Your task to perform on an android device: find snoozed emails in the gmail app Image 0: 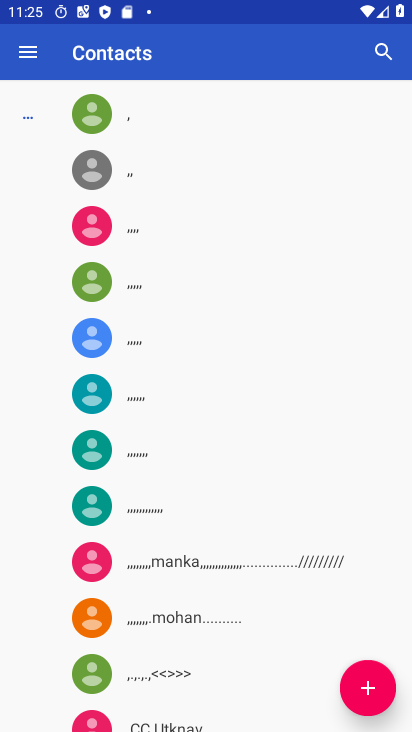
Step 0: press home button
Your task to perform on an android device: find snoozed emails in the gmail app Image 1: 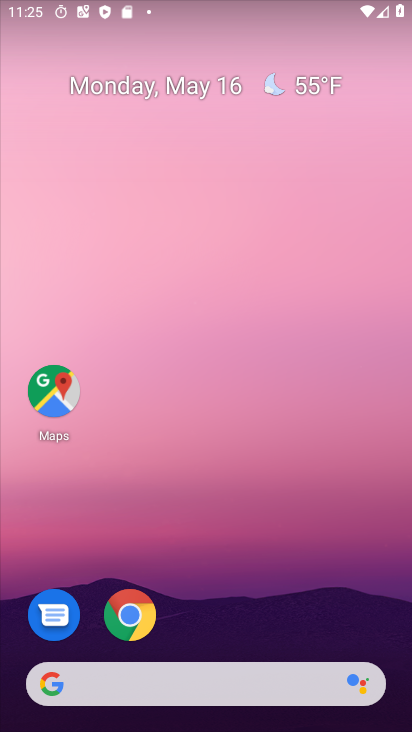
Step 1: drag from (340, 600) to (320, 40)
Your task to perform on an android device: find snoozed emails in the gmail app Image 2: 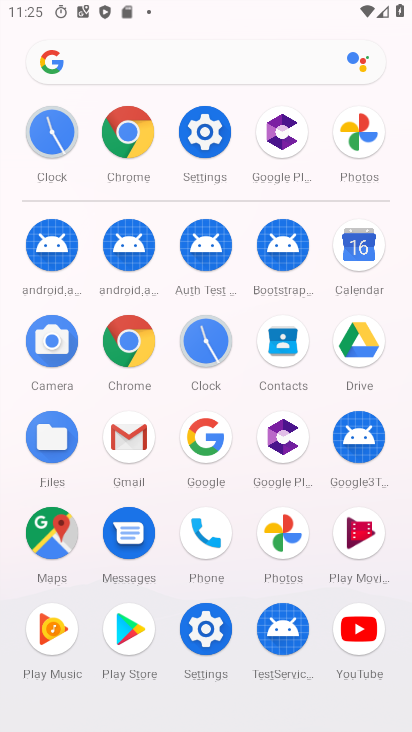
Step 2: click (140, 438)
Your task to perform on an android device: find snoozed emails in the gmail app Image 3: 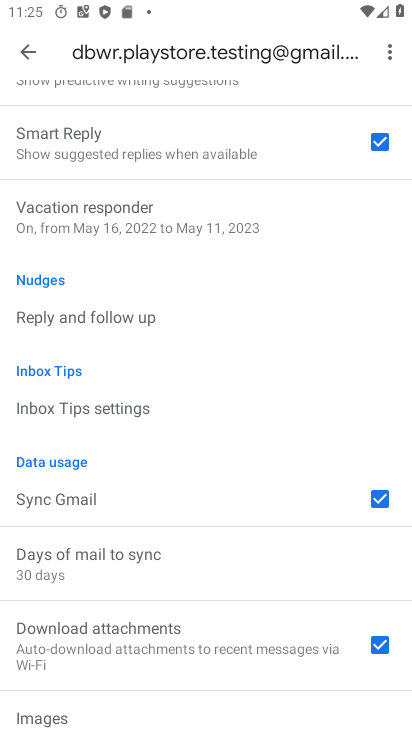
Step 3: click (33, 43)
Your task to perform on an android device: find snoozed emails in the gmail app Image 4: 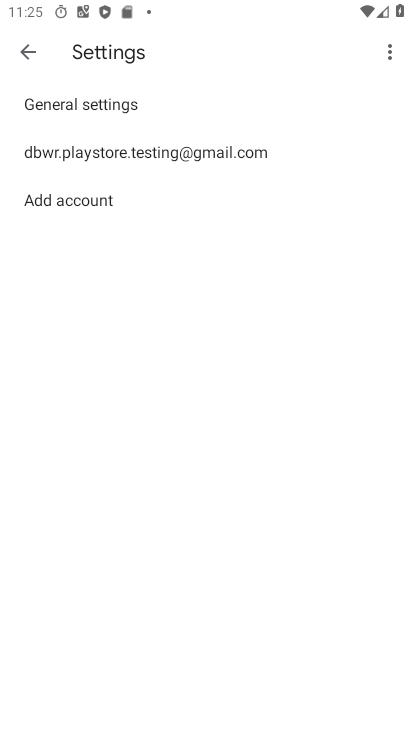
Step 4: click (38, 54)
Your task to perform on an android device: find snoozed emails in the gmail app Image 5: 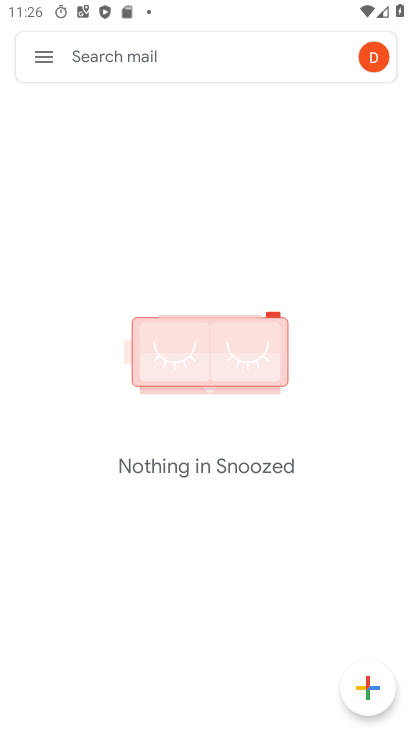
Step 5: press home button
Your task to perform on an android device: find snoozed emails in the gmail app Image 6: 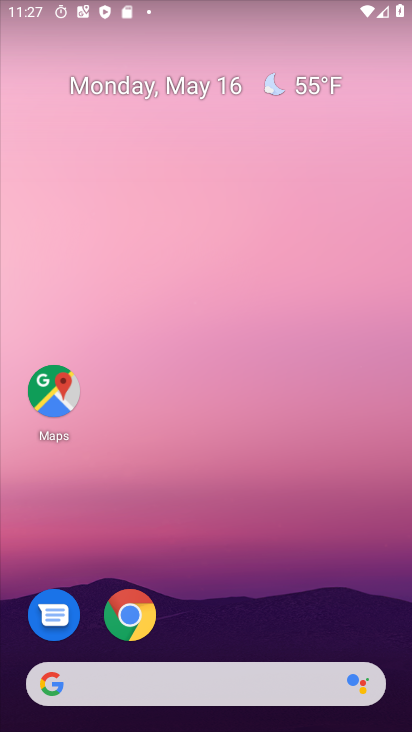
Step 6: drag from (263, 189) to (263, 60)
Your task to perform on an android device: find snoozed emails in the gmail app Image 7: 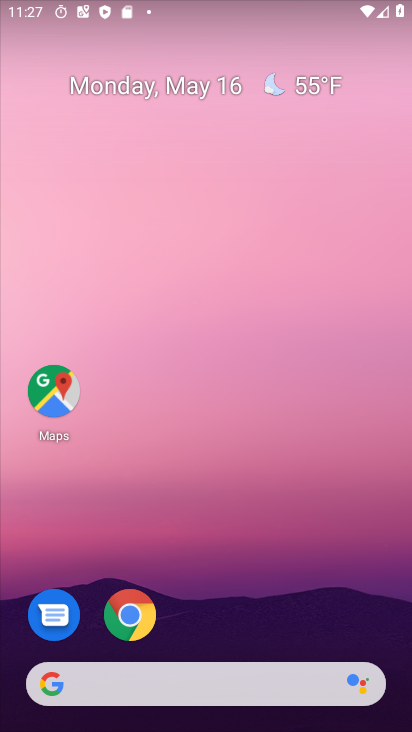
Step 7: drag from (278, 500) to (374, 0)
Your task to perform on an android device: find snoozed emails in the gmail app Image 8: 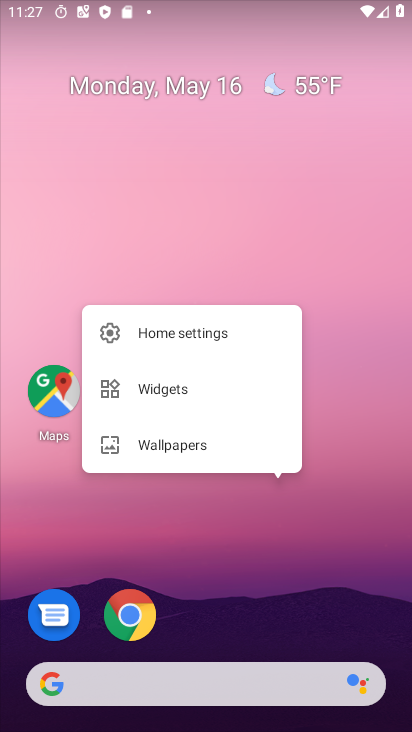
Step 8: drag from (333, 551) to (48, 11)
Your task to perform on an android device: find snoozed emails in the gmail app Image 9: 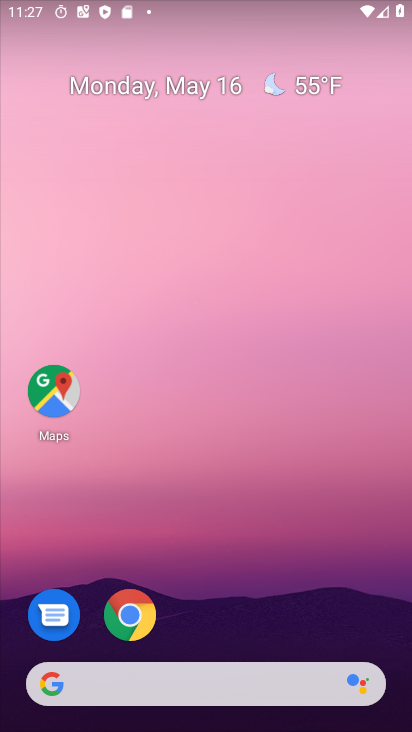
Step 9: drag from (233, 628) to (307, 12)
Your task to perform on an android device: find snoozed emails in the gmail app Image 10: 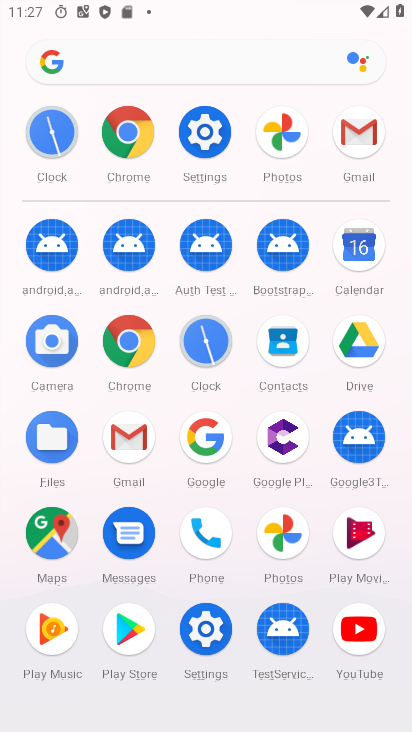
Step 10: drag from (352, 587) to (281, 220)
Your task to perform on an android device: find snoozed emails in the gmail app Image 11: 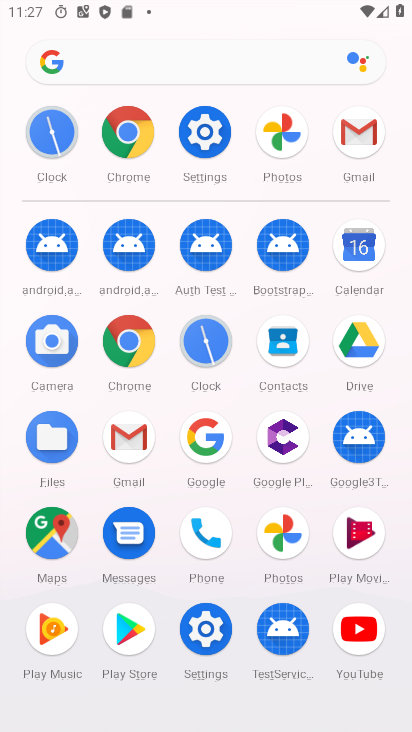
Step 11: click (352, 133)
Your task to perform on an android device: find snoozed emails in the gmail app Image 12: 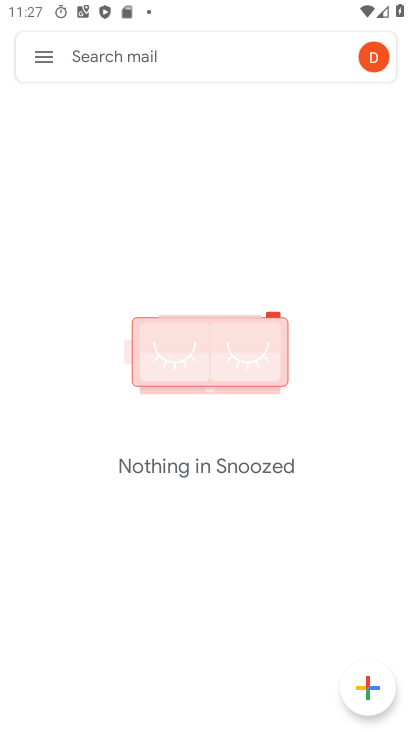
Step 12: click (37, 51)
Your task to perform on an android device: find snoozed emails in the gmail app Image 13: 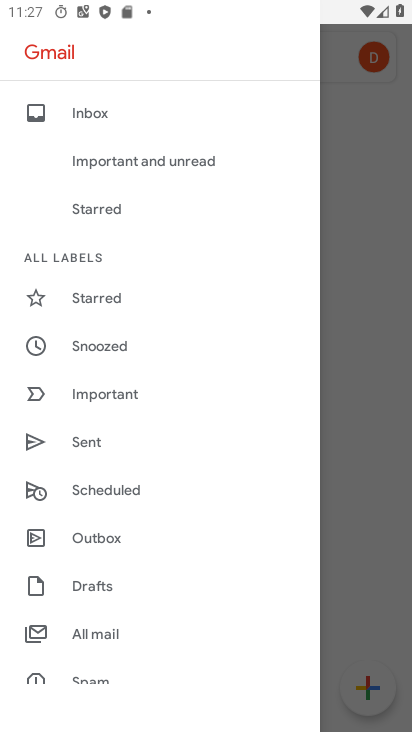
Step 13: click (89, 341)
Your task to perform on an android device: find snoozed emails in the gmail app Image 14: 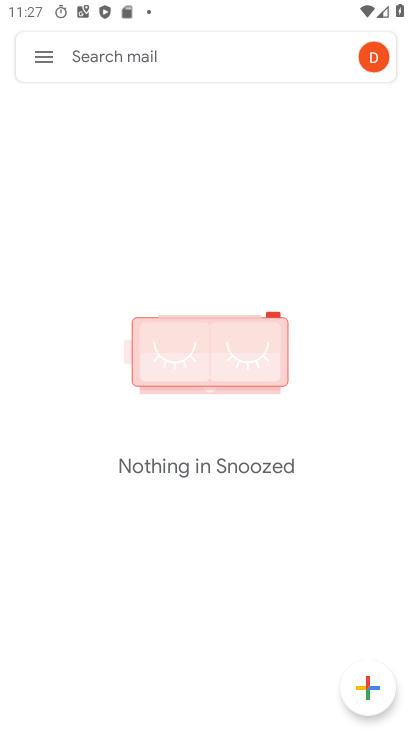
Step 14: task complete